Your task to perform on an android device: change the clock display to analog Image 0: 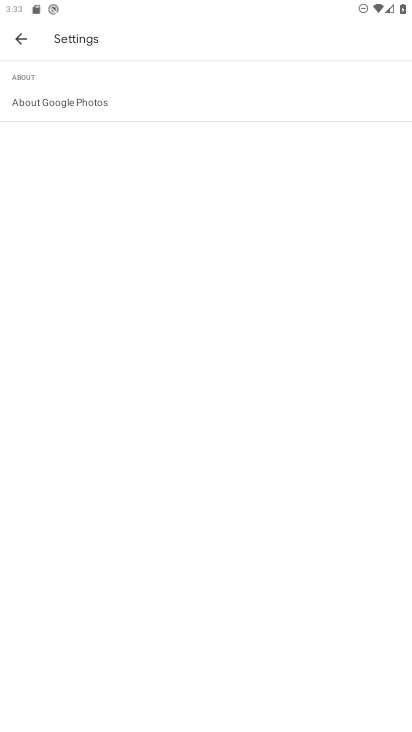
Step 0: press home button
Your task to perform on an android device: change the clock display to analog Image 1: 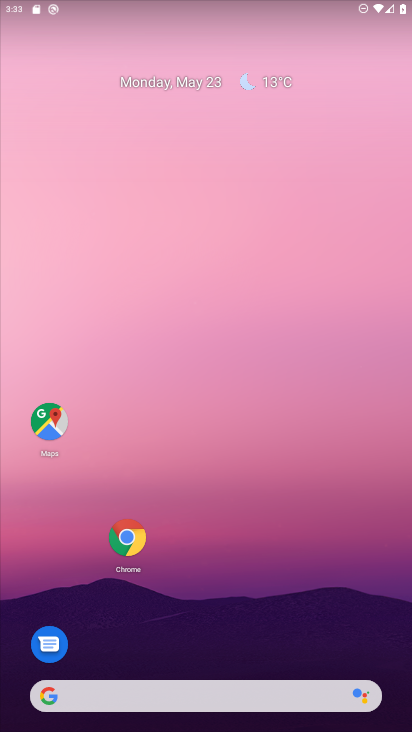
Step 1: drag from (277, 575) to (245, 49)
Your task to perform on an android device: change the clock display to analog Image 2: 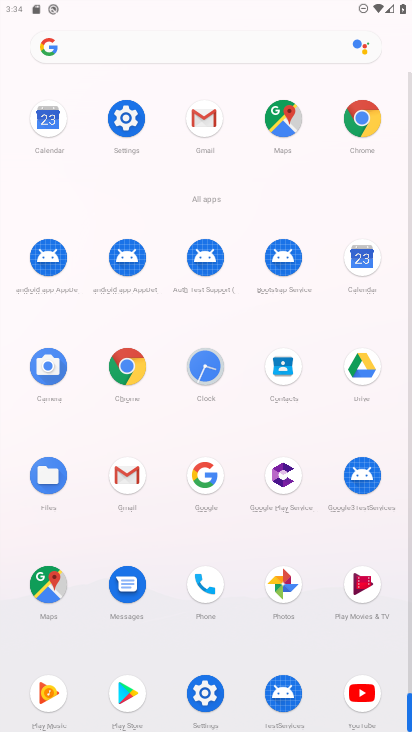
Step 2: click (116, 114)
Your task to perform on an android device: change the clock display to analog Image 3: 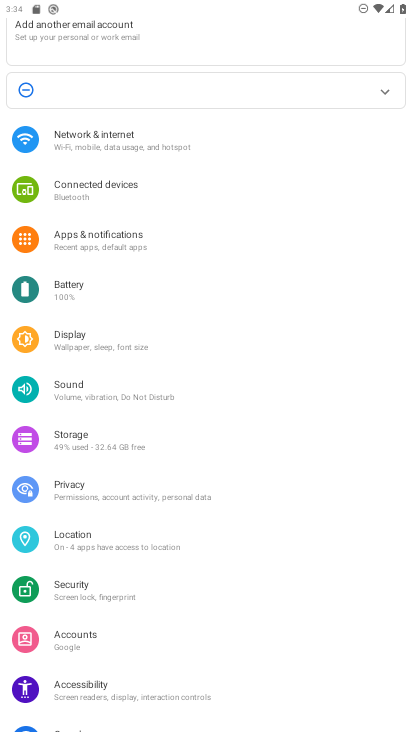
Step 3: press home button
Your task to perform on an android device: change the clock display to analog Image 4: 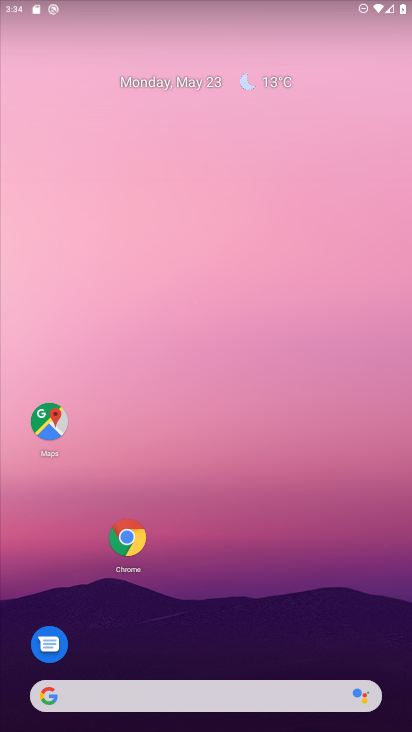
Step 4: drag from (262, 576) to (311, 105)
Your task to perform on an android device: change the clock display to analog Image 5: 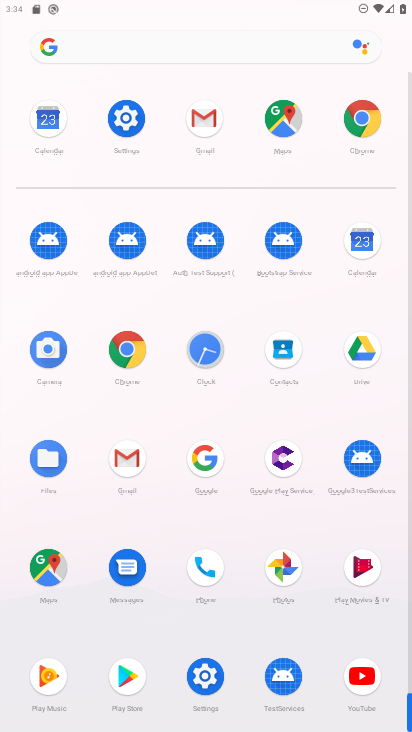
Step 5: click (218, 346)
Your task to perform on an android device: change the clock display to analog Image 6: 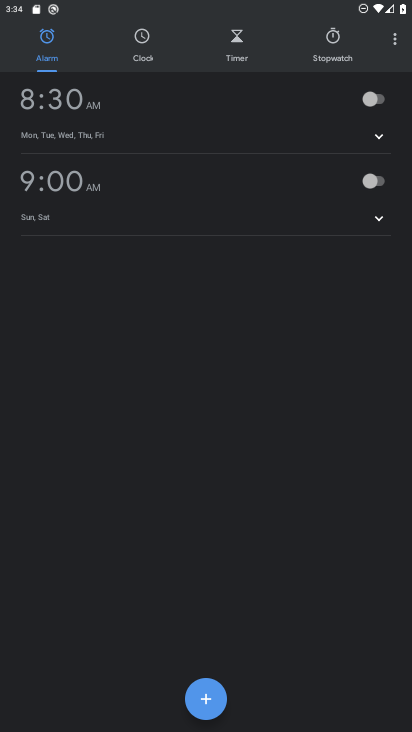
Step 6: click (395, 42)
Your task to perform on an android device: change the clock display to analog Image 7: 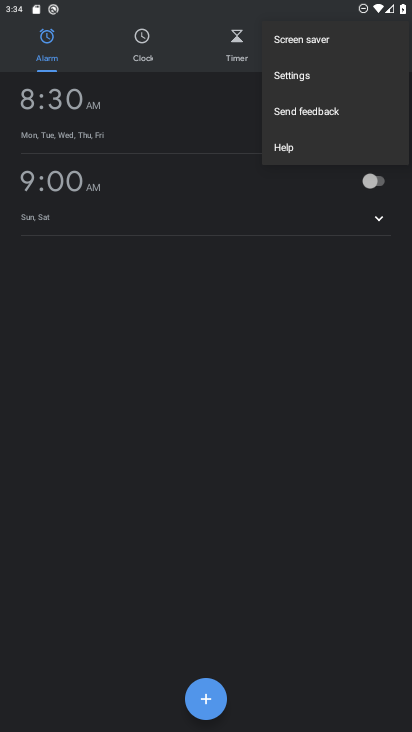
Step 7: click (320, 73)
Your task to perform on an android device: change the clock display to analog Image 8: 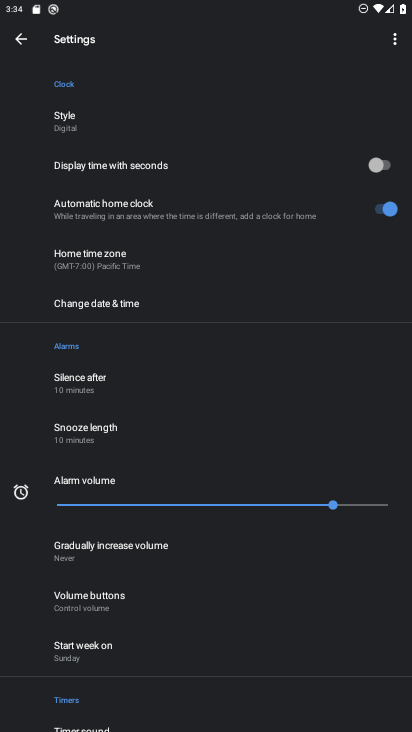
Step 8: click (187, 123)
Your task to perform on an android device: change the clock display to analog Image 9: 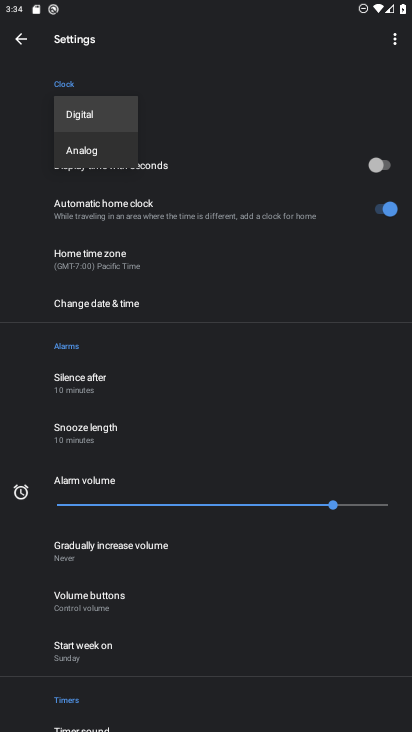
Step 9: click (121, 156)
Your task to perform on an android device: change the clock display to analog Image 10: 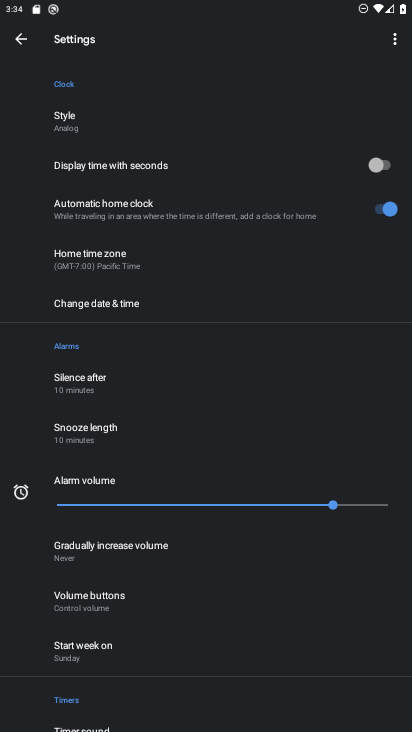
Step 10: task complete